Your task to perform on an android device: Is it going to rain today? Image 0: 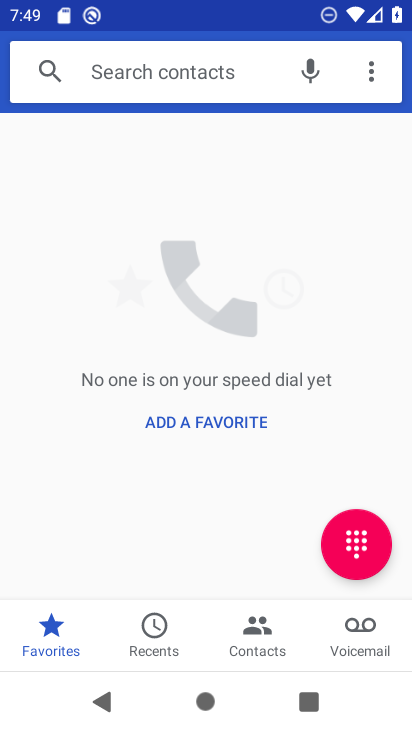
Step 0: press home button
Your task to perform on an android device: Is it going to rain today? Image 1: 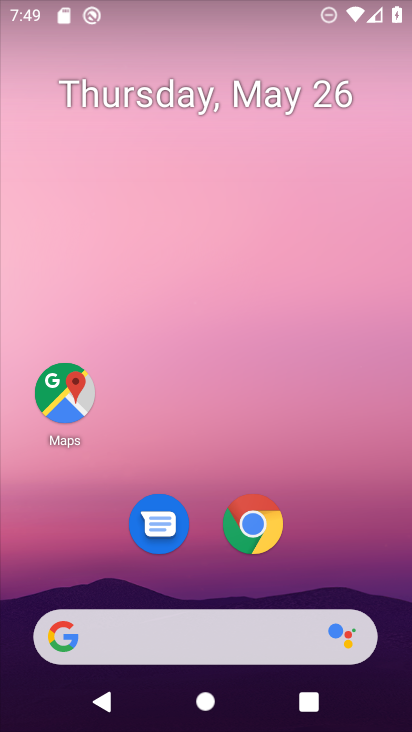
Step 1: click (263, 653)
Your task to perform on an android device: Is it going to rain today? Image 2: 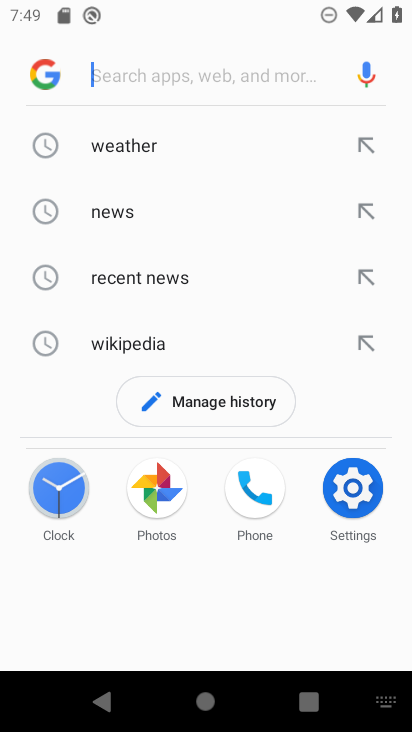
Step 2: click (116, 144)
Your task to perform on an android device: Is it going to rain today? Image 3: 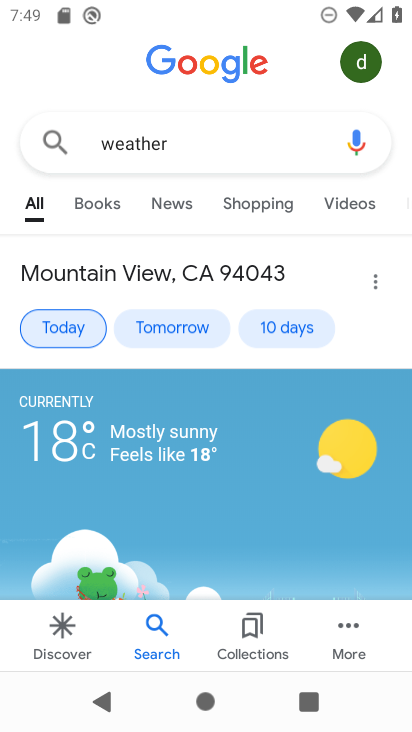
Step 3: task complete